Your task to perform on an android device: What is the capital of Norway? Image 0: 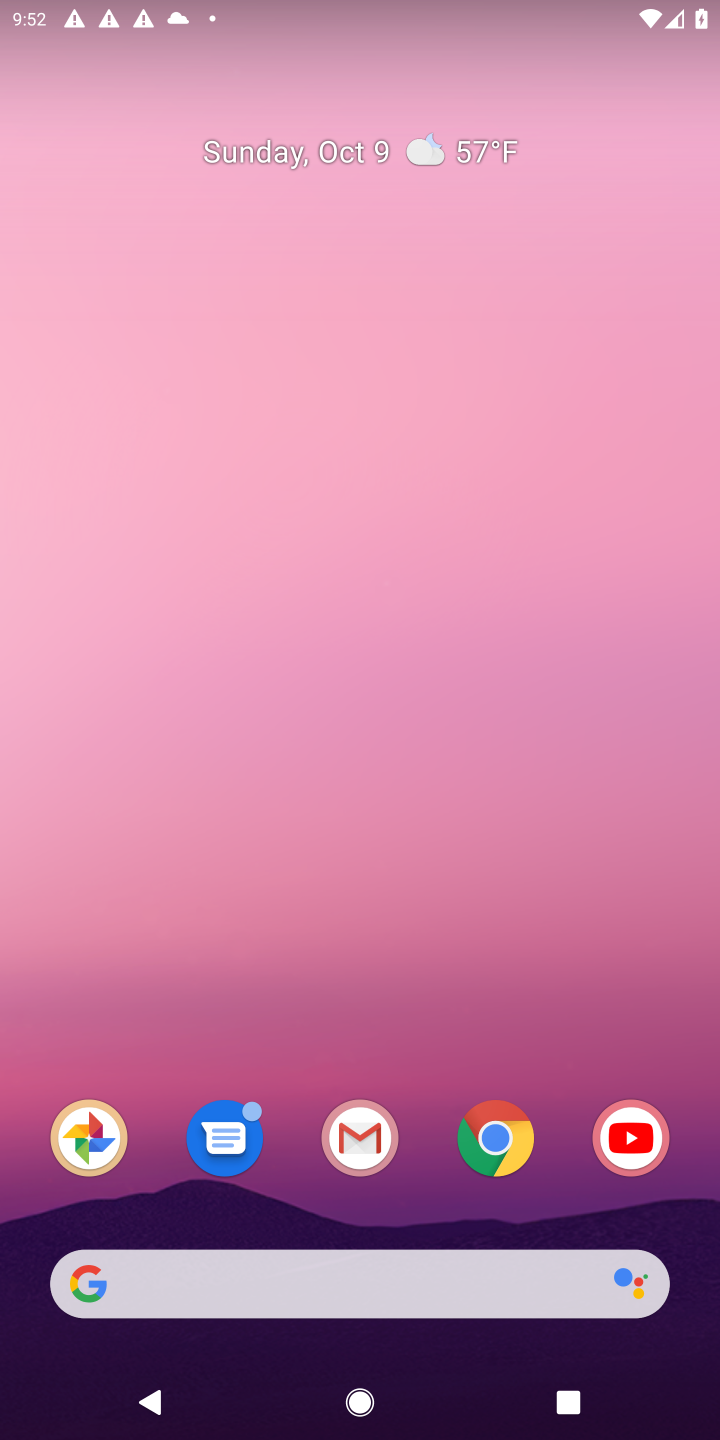
Step 0: click (493, 1150)
Your task to perform on an android device: What is the capital of Norway? Image 1: 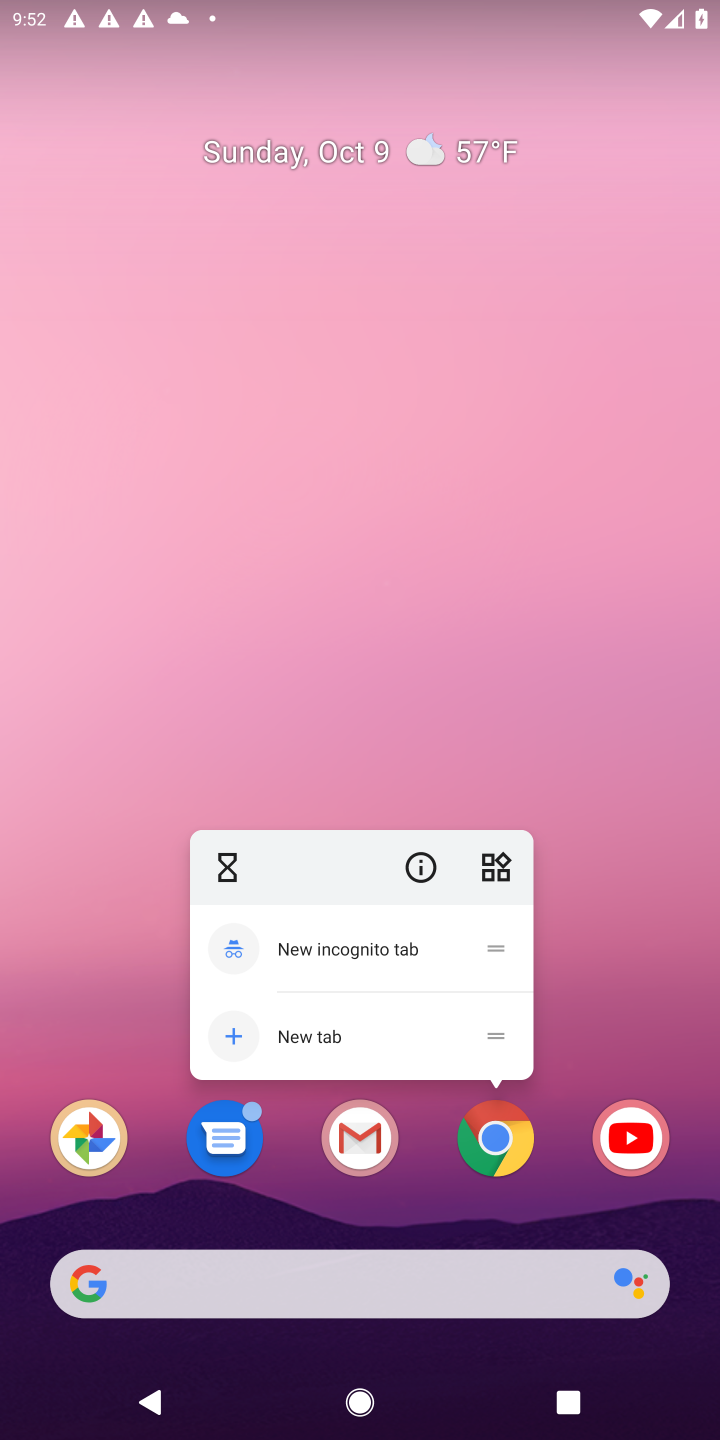
Step 1: click (500, 1138)
Your task to perform on an android device: What is the capital of Norway? Image 2: 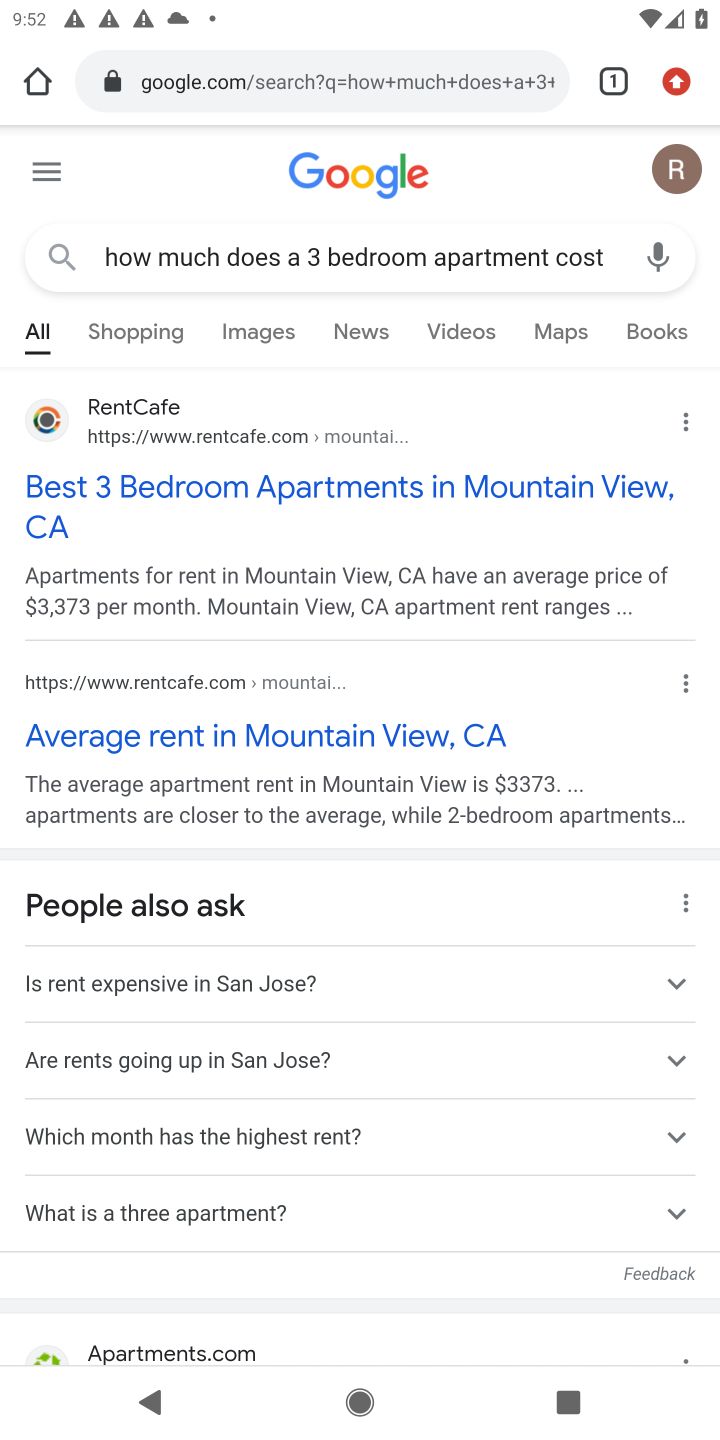
Step 2: click (387, 78)
Your task to perform on an android device: What is the capital of Norway? Image 3: 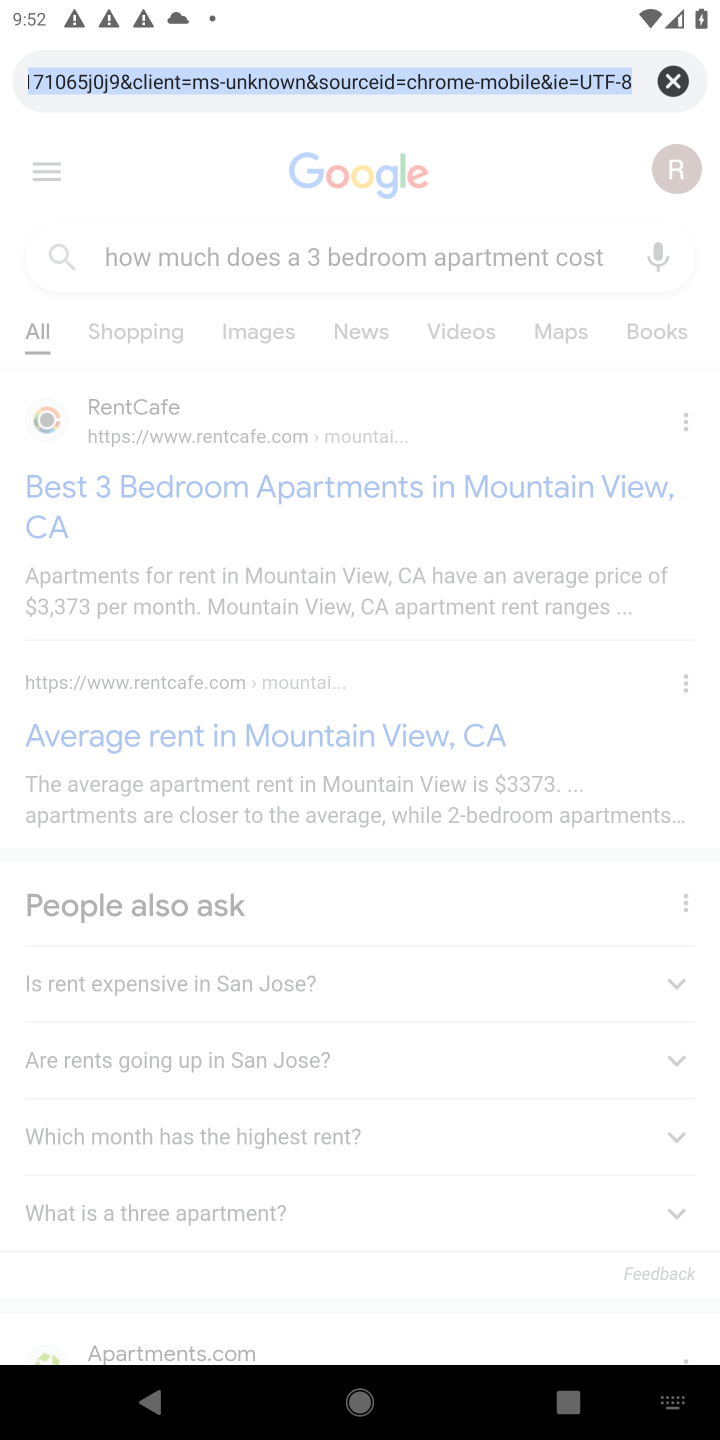
Step 3: click (672, 80)
Your task to perform on an android device: What is the capital of Norway? Image 4: 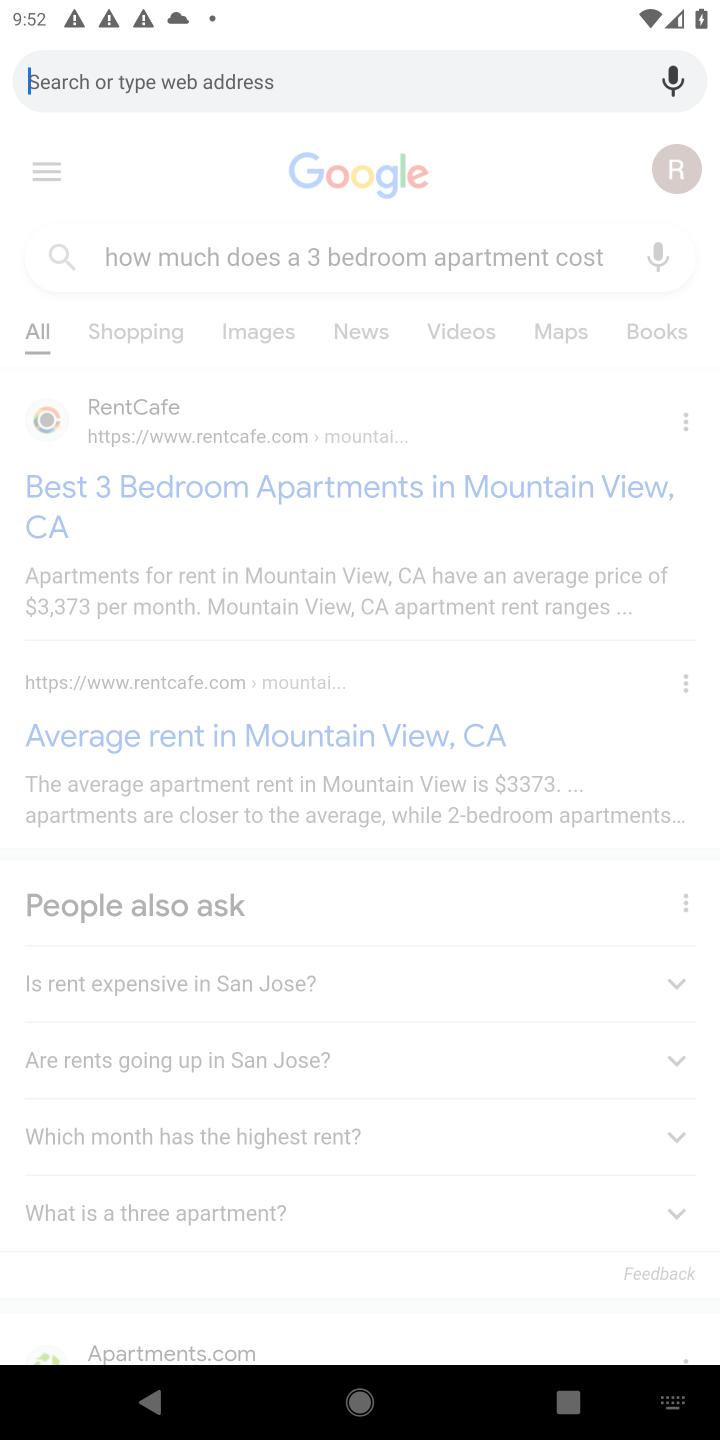
Step 4: type "what is the capital of norway ?"
Your task to perform on an android device: What is the capital of Norway? Image 5: 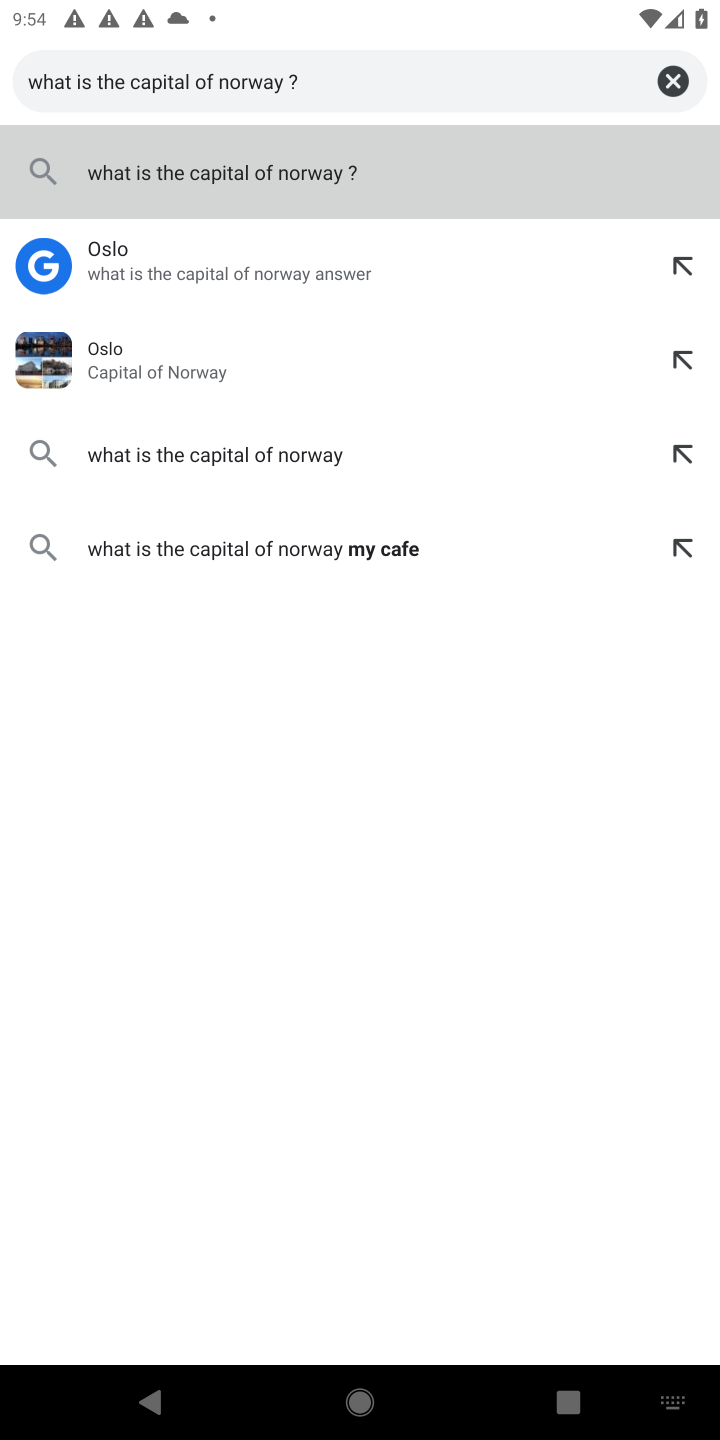
Step 5: click (357, 161)
Your task to perform on an android device: What is the capital of Norway? Image 6: 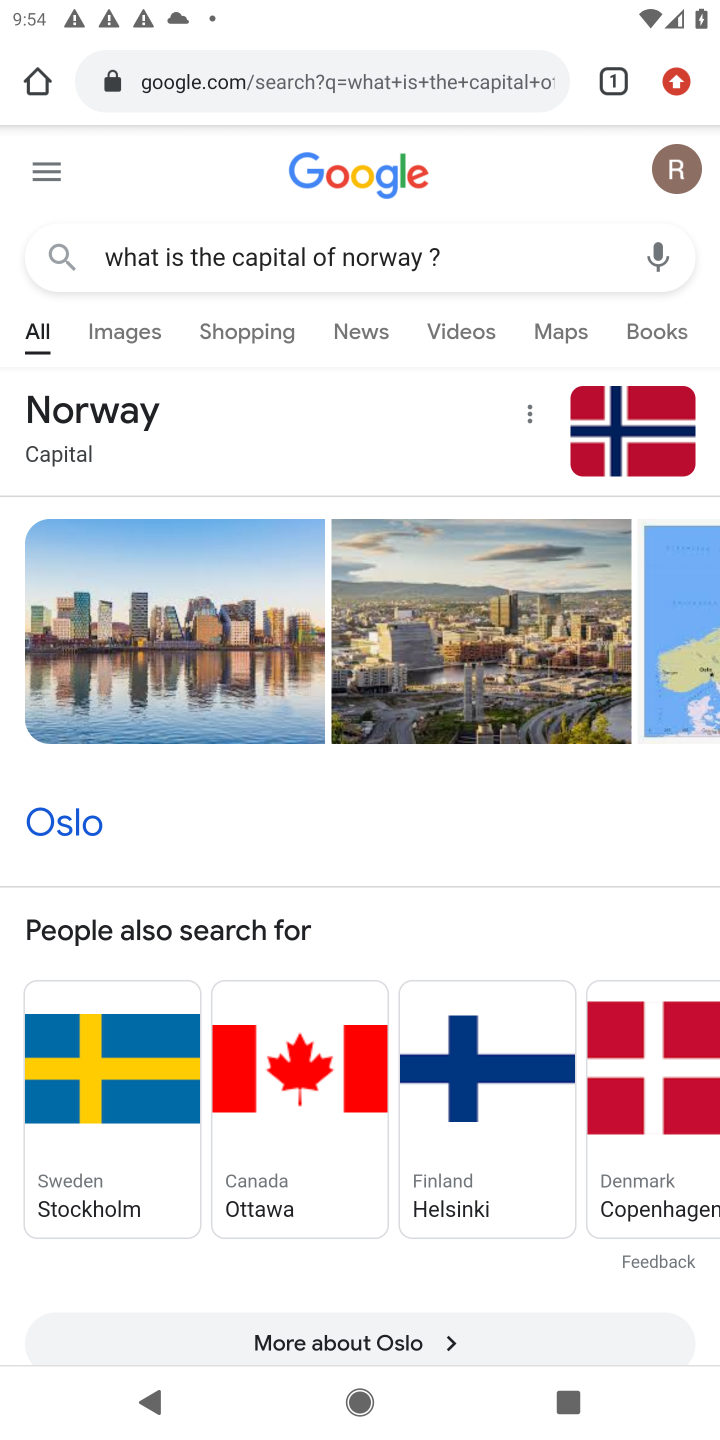
Step 6: task complete